Your task to perform on an android device: turn notification dots on Image 0: 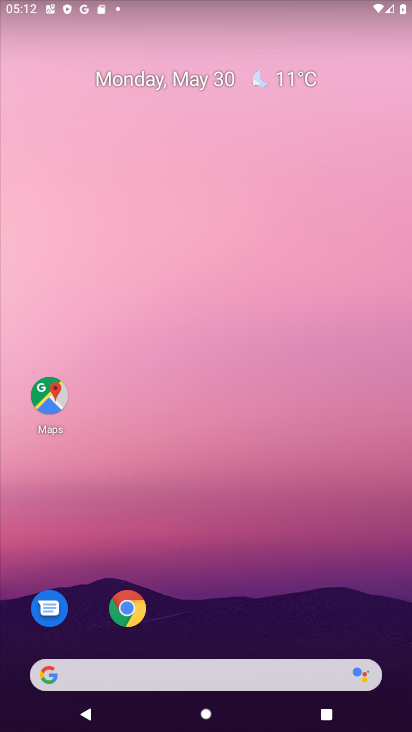
Step 0: drag from (259, 499) to (266, 294)
Your task to perform on an android device: turn notification dots on Image 1: 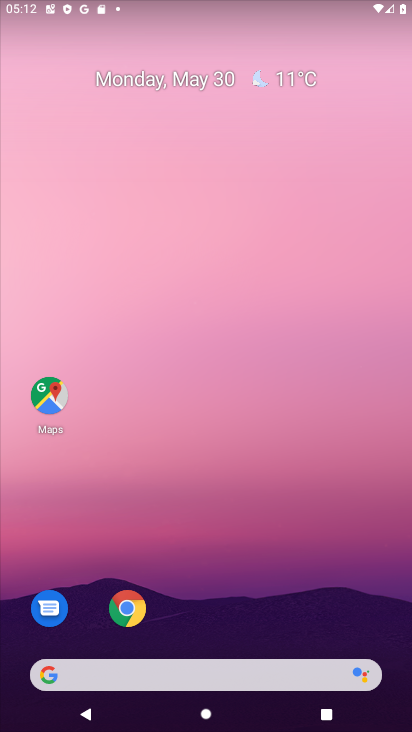
Step 1: drag from (206, 525) to (207, 212)
Your task to perform on an android device: turn notification dots on Image 2: 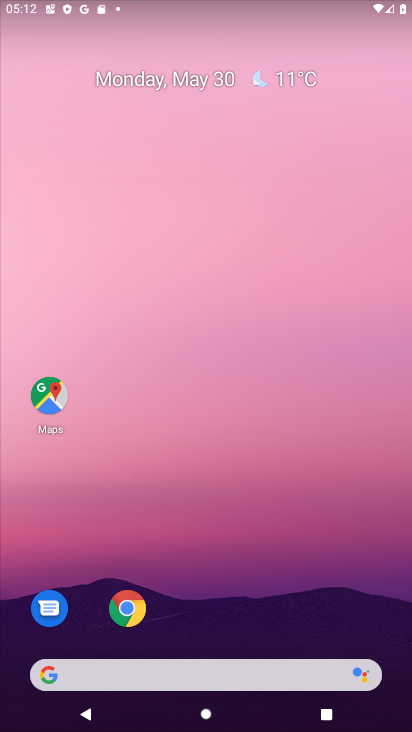
Step 2: drag from (198, 573) to (244, 164)
Your task to perform on an android device: turn notification dots on Image 3: 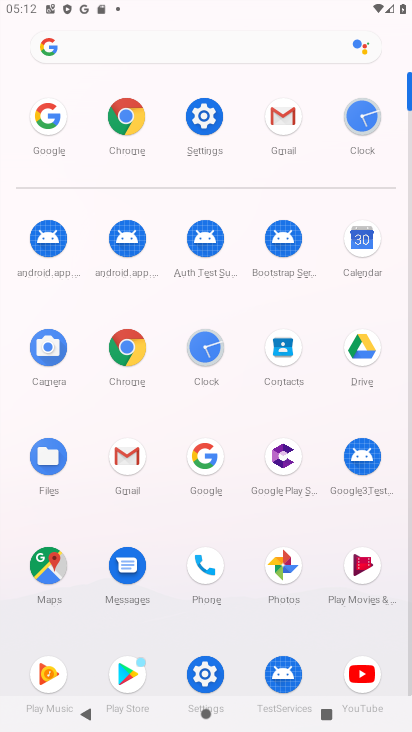
Step 3: click (216, 114)
Your task to perform on an android device: turn notification dots on Image 4: 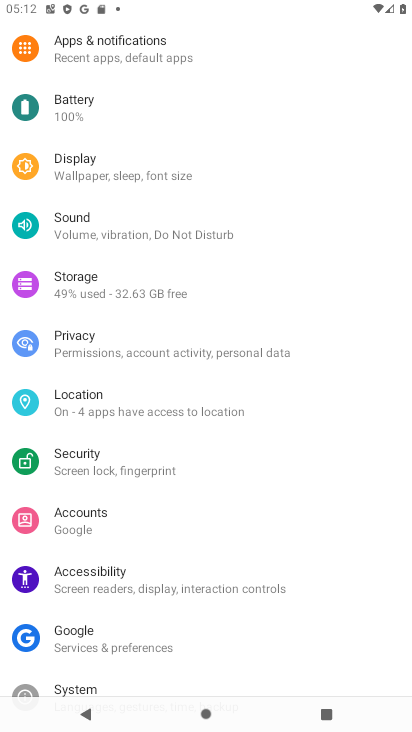
Step 4: click (141, 54)
Your task to perform on an android device: turn notification dots on Image 5: 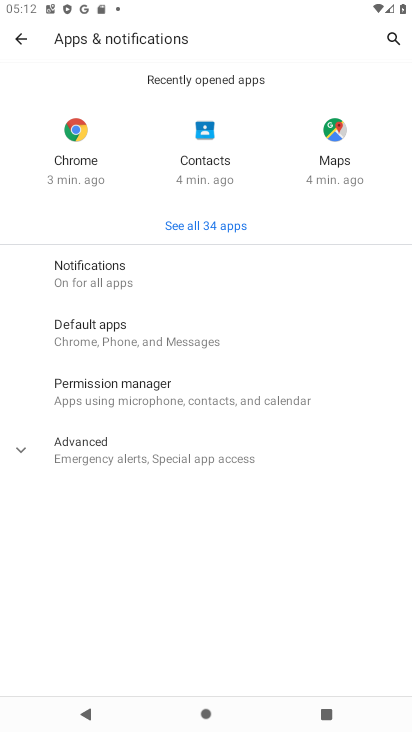
Step 5: click (123, 442)
Your task to perform on an android device: turn notification dots on Image 6: 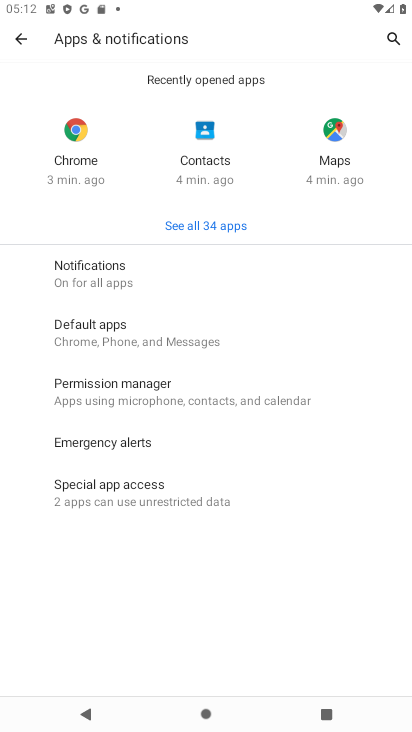
Step 6: click (111, 253)
Your task to perform on an android device: turn notification dots on Image 7: 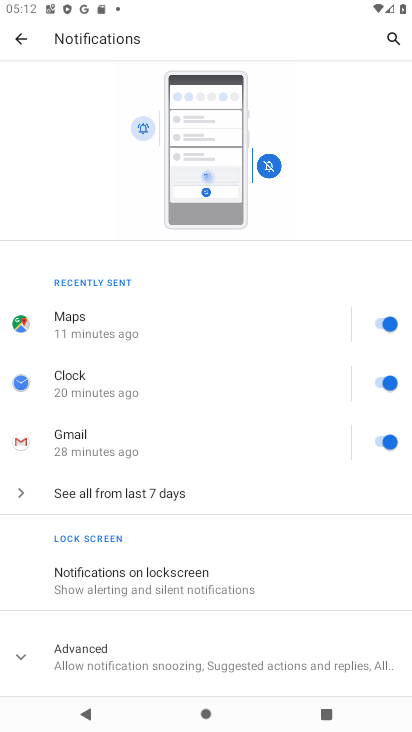
Step 7: click (161, 669)
Your task to perform on an android device: turn notification dots on Image 8: 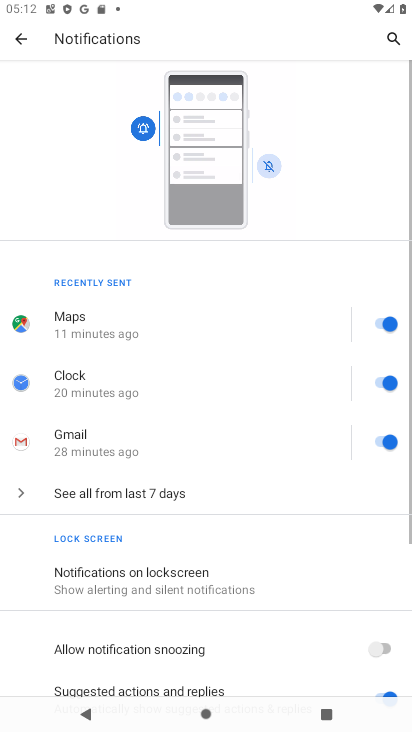
Step 8: task complete